Your task to perform on an android device: Open accessibility settings Image 0: 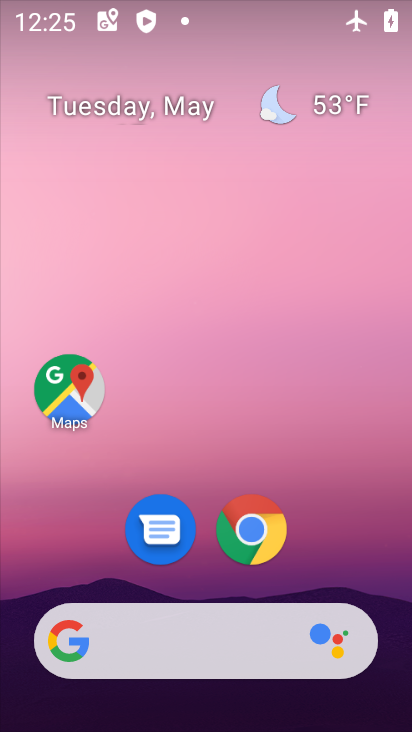
Step 0: drag from (193, 719) to (193, 226)
Your task to perform on an android device: Open accessibility settings Image 1: 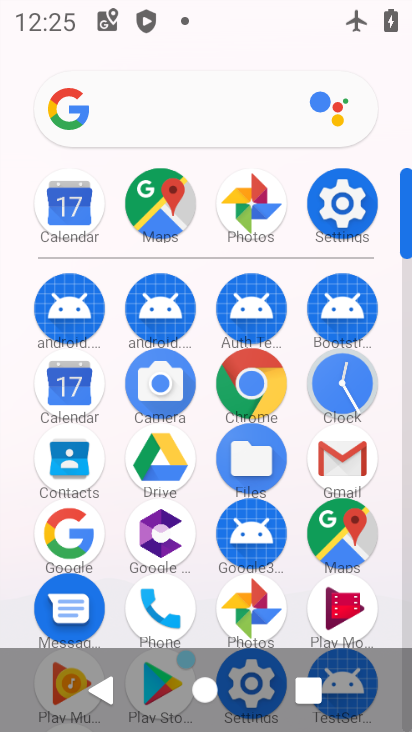
Step 1: click (344, 201)
Your task to perform on an android device: Open accessibility settings Image 2: 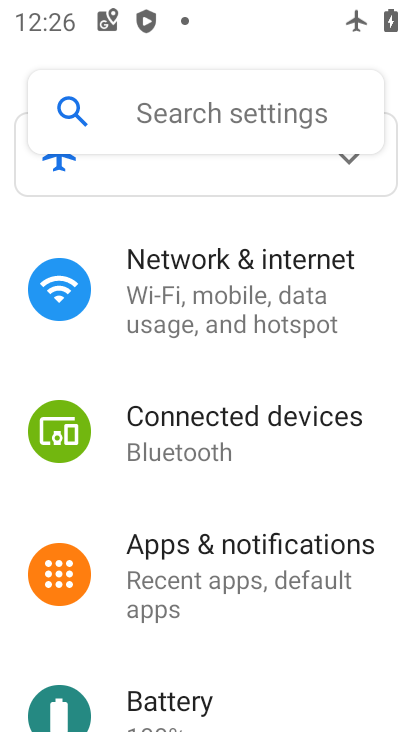
Step 2: drag from (221, 689) to (217, 195)
Your task to perform on an android device: Open accessibility settings Image 3: 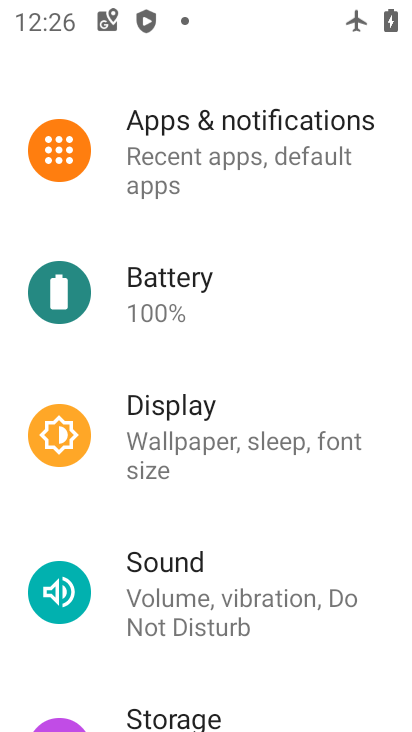
Step 3: drag from (208, 676) to (206, 236)
Your task to perform on an android device: Open accessibility settings Image 4: 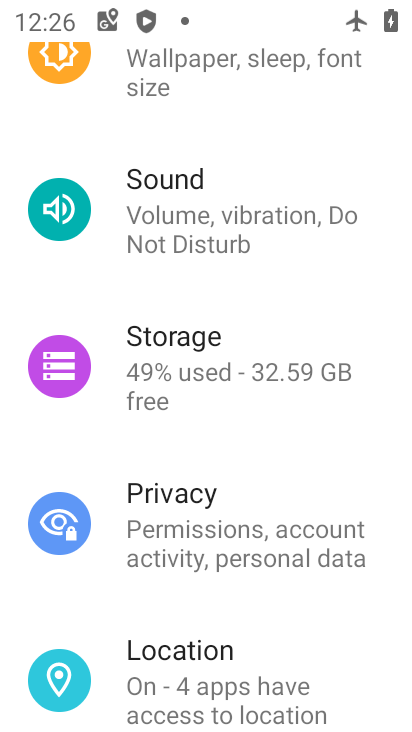
Step 4: drag from (188, 647) to (186, 226)
Your task to perform on an android device: Open accessibility settings Image 5: 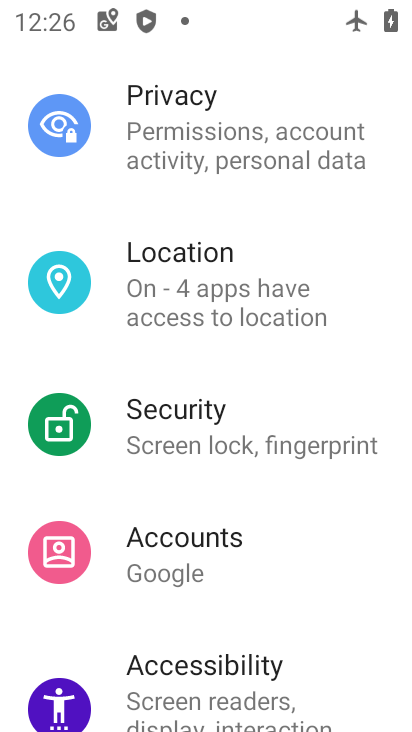
Step 5: click (168, 667)
Your task to perform on an android device: Open accessibility settings Image 6: 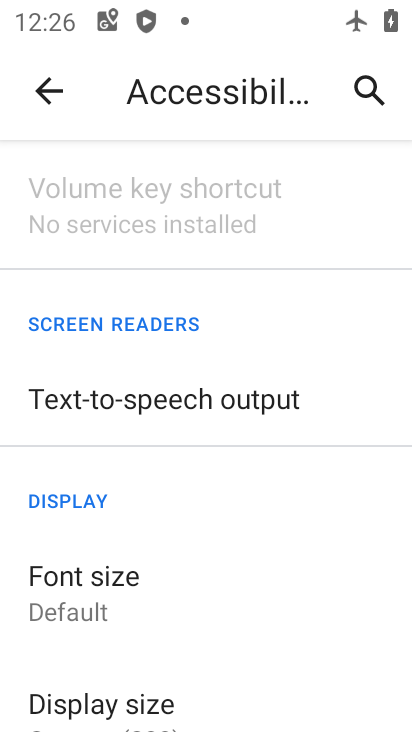
Step 6: task complete